Your task to perform on an android device: Go to Amazon Image 0: 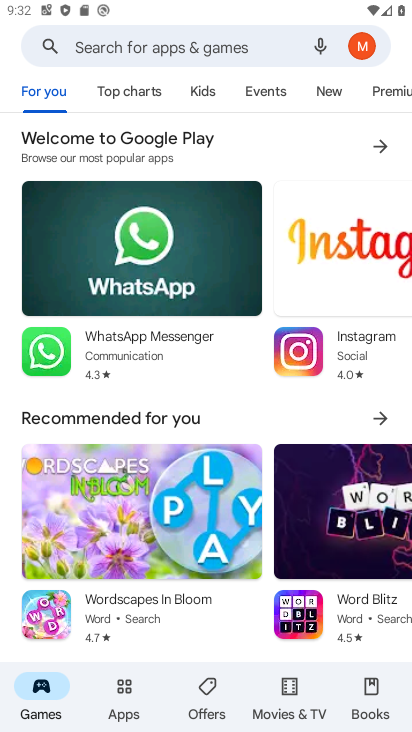
Step 0: press home button
Your task to perform on an android device: Go to Amazon Image 1: 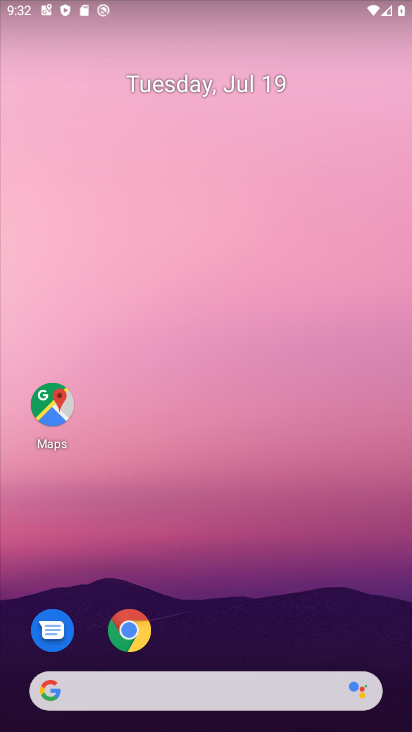
Step 1: drag from (232, 632) to (226, 124)
Your task to perform on an android device: Go to Amazon Image 2: 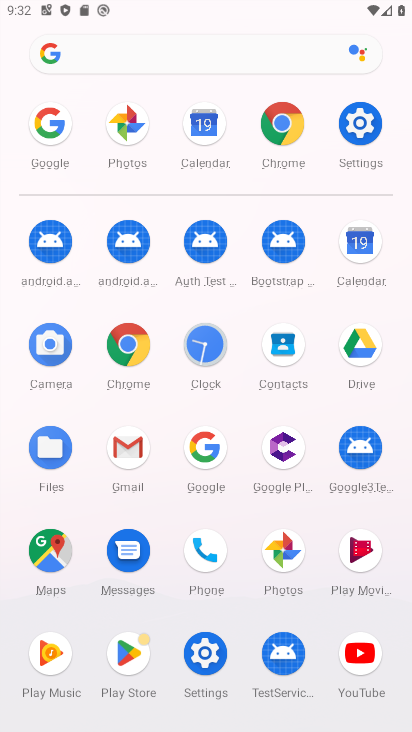
Step 2: click (126, 344)
Your task to perform on an android device: Go to Amazon Image 3: 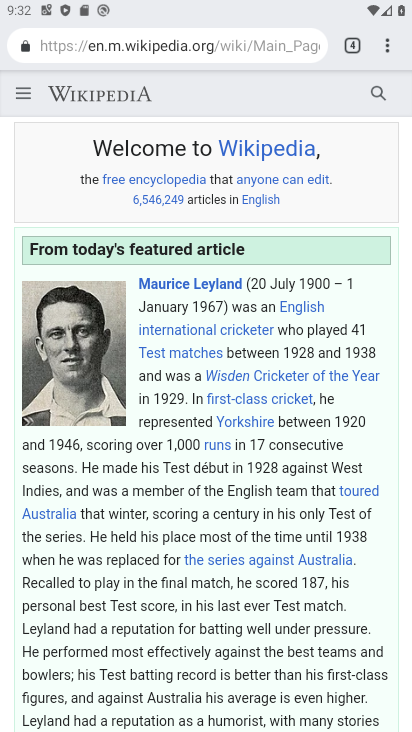
Step 3: click (351, 45)
Your task to perform on an android device: Go to Amazon Image 4: 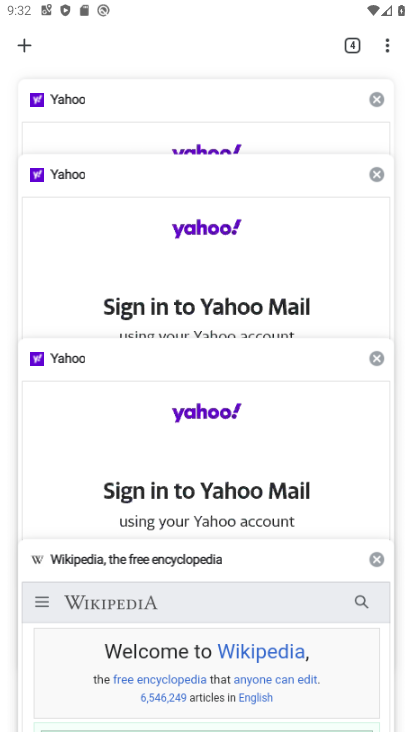
Step 4: click (27, 47)
Your task to perform on an android device: Go to Amazon Image 5: 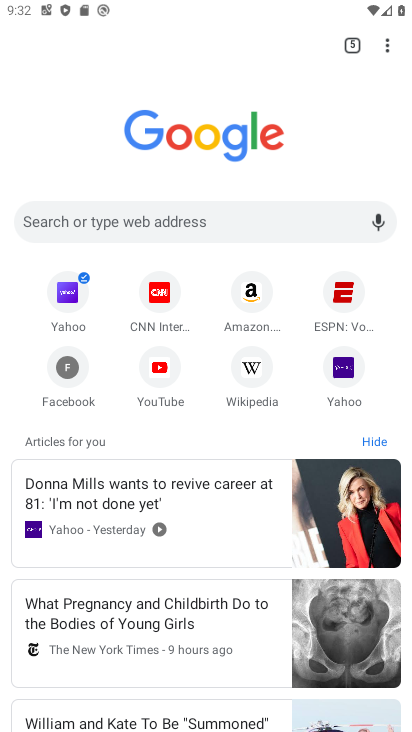
Step 5: click (252, 289)
Your task to perform on an android device: Go to Amazon Image 6: 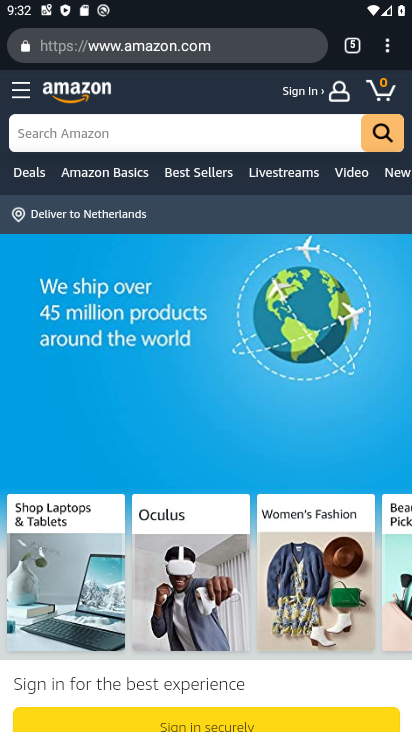
Step 6: task complete